Your task to perform on an android device: Open calendar and show me the second week of next month Image 0: 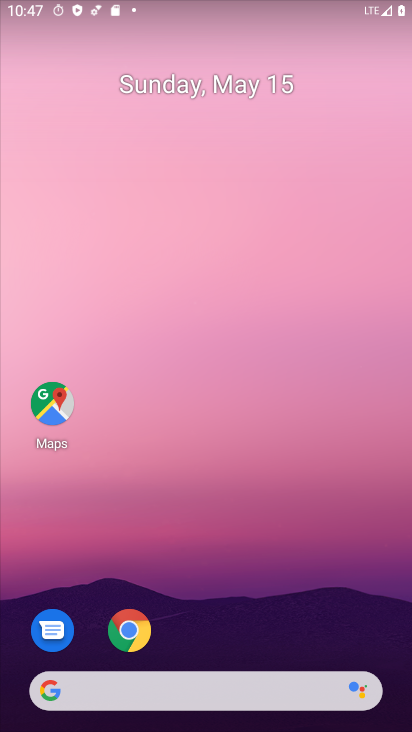
Step 0: drag from (281, 609) to (344, 40)
Your task to perform on an android device: Open calendar and show me the second week of next month Image 1: 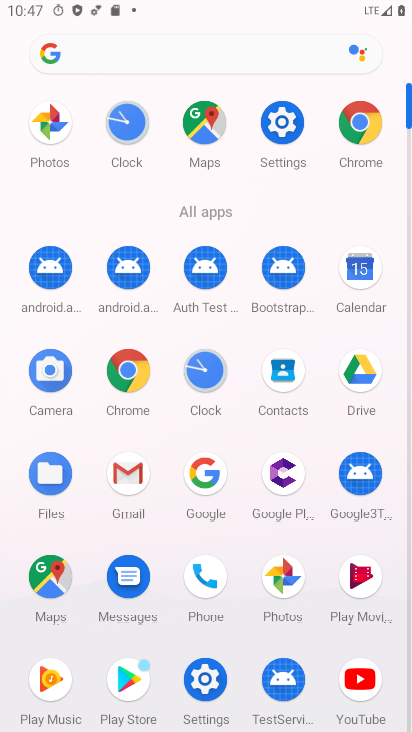
Step 1: click (358, 272)
Your task to perform on an android device: Open calendar and show me the second week of next month Image 2: 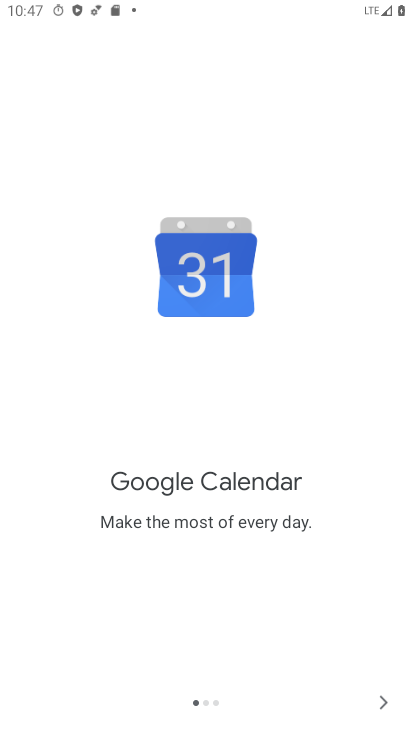
Step 2: click (375, 700)
Your task to perform on an android device: Open calendar and show me the second week of next month Image 3: 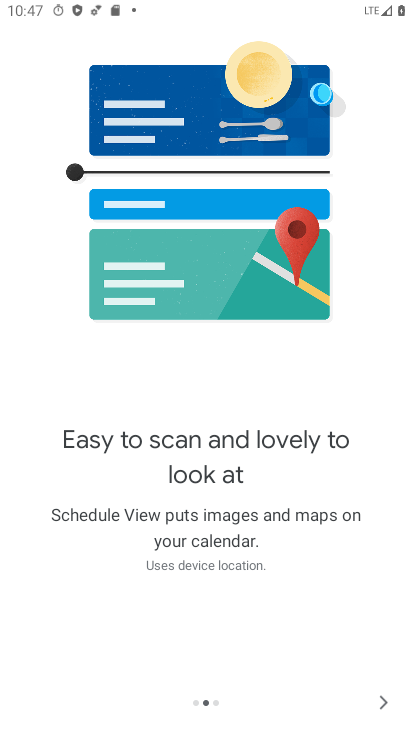
Step 3: click (375, 700)
Your task to perform on an android device: Open calendar and show me the second week of next month Image 4: 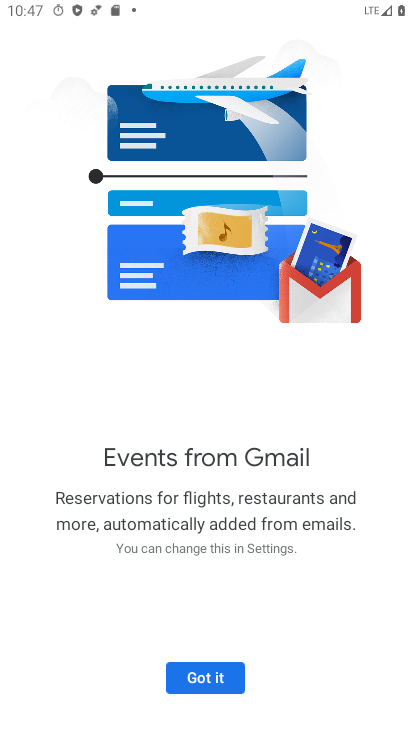
Step 4: click (200, 674)
Your task to perform on an android device: Open calendar and show me the second week of next month Image 5: 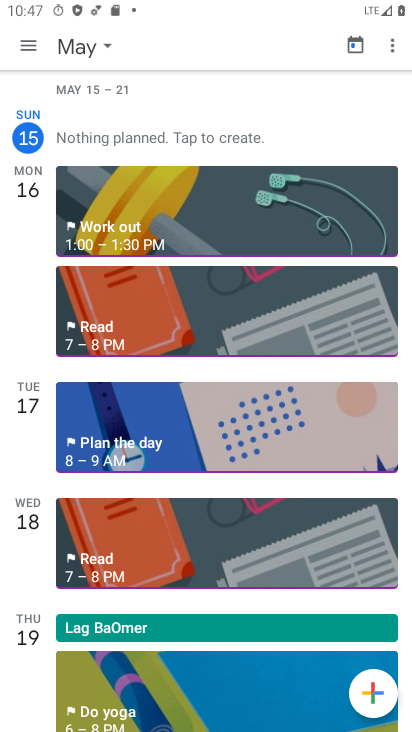
Step 5: click (85, 40)
Your task to perform on an android device: Open calendar and show me the second week of next month Image 6: 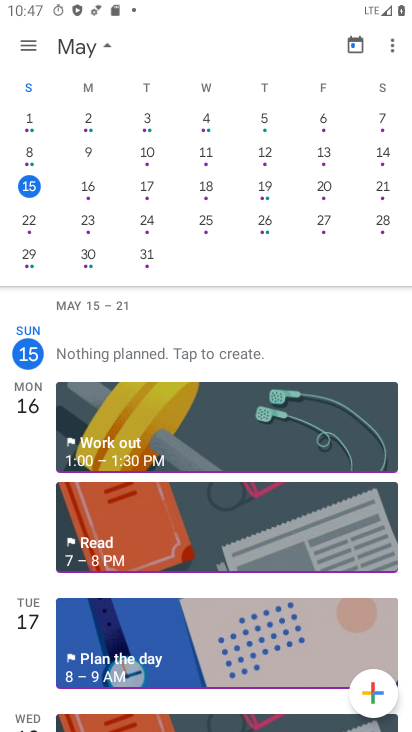
Step 6: drag from (356, 183) to (7, 134)
Your task to perform on an android device: Open calendar and show me the second week of next month Image 7: 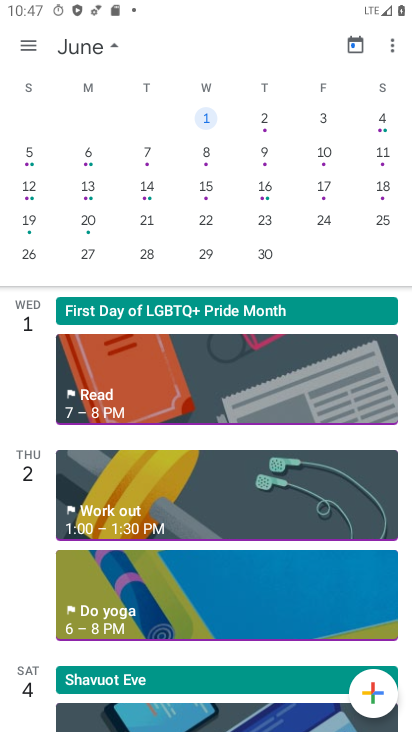
Step 7: click (264, 115)
Your task to perform on an android device: Open calendar and show me the second week of next month Image 8: 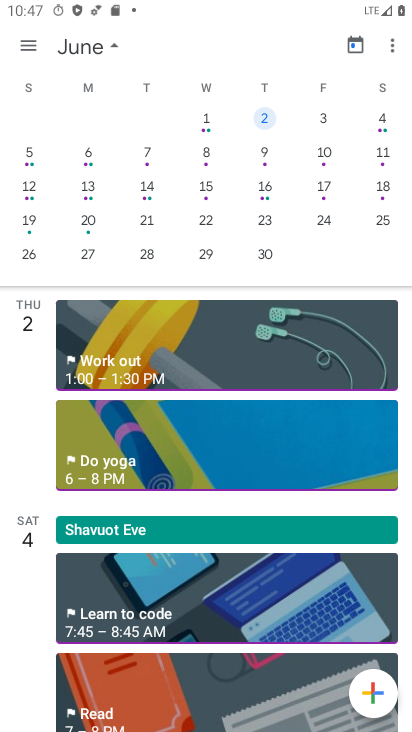
Step 8: task complete